Your task to perform on an android device: How much does the new iPad cost? Image 0: 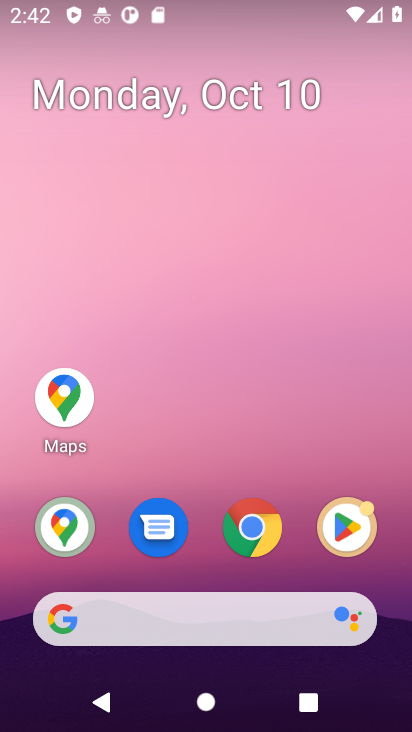
Step 0: click (252, 526)
Your task to perform on an android device: How much does the new iPad cost? Image 1: 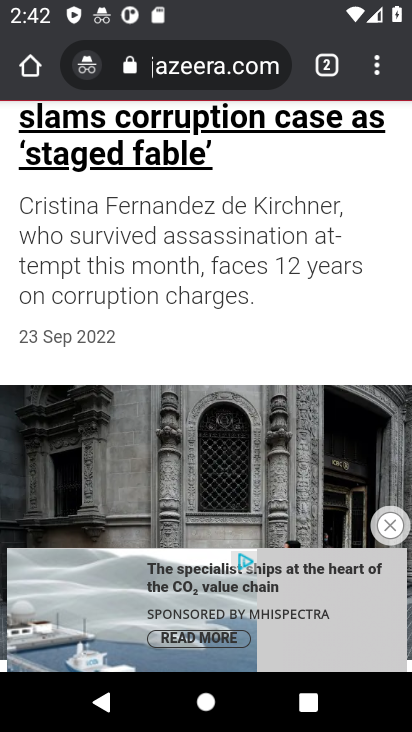
Step 1: click (265, 66)
Your task to perform on an android device: How much does the new iPad cost? Image 2: 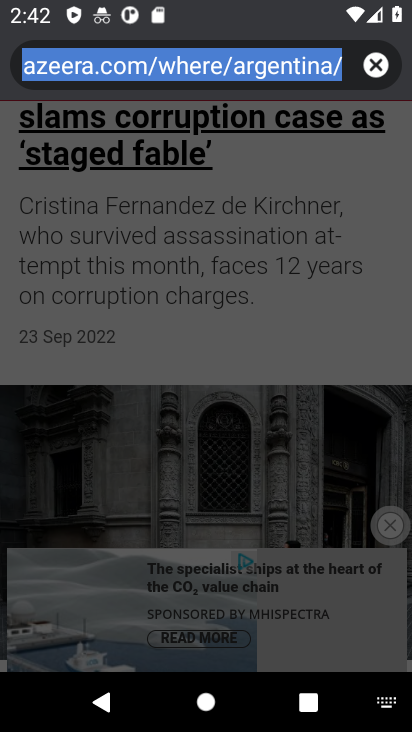
Step 2: click (375, 68)
Your task to perform on an android device: How much does the new iPad cost? Image 3: 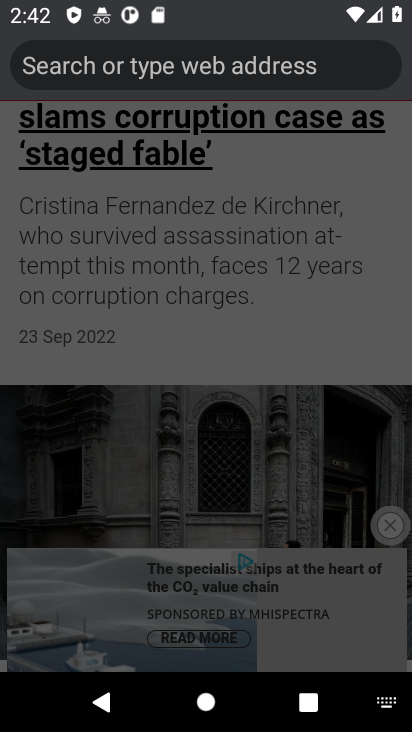
Step 3: click (270, 64)
Your task to perform on an android device: How much does the new iPad cost? Image 4: 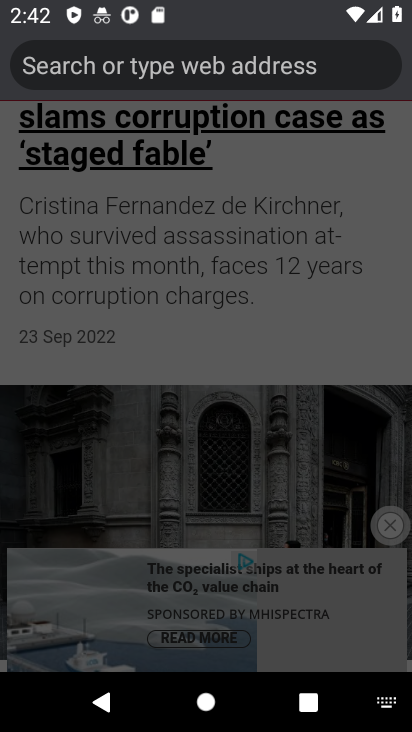
Step 4: type "How much does the new iPad cost"
Your task to perform on an android device: How much does the new iPad cost? Image 5: 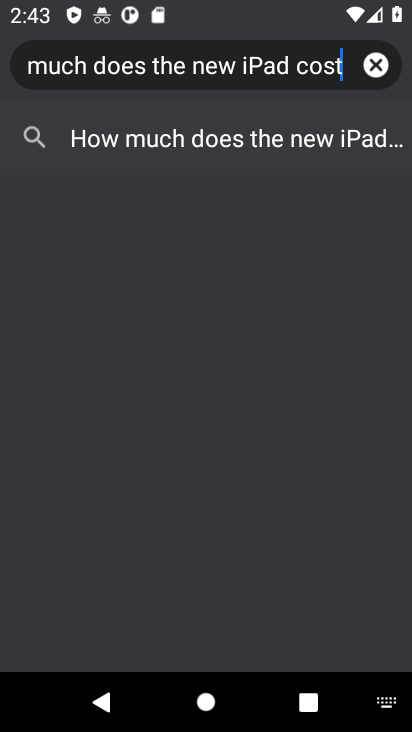
Step 5: click (337, 148)
Your task to perform on an android device: How much does the new iPad cost? Image 6: 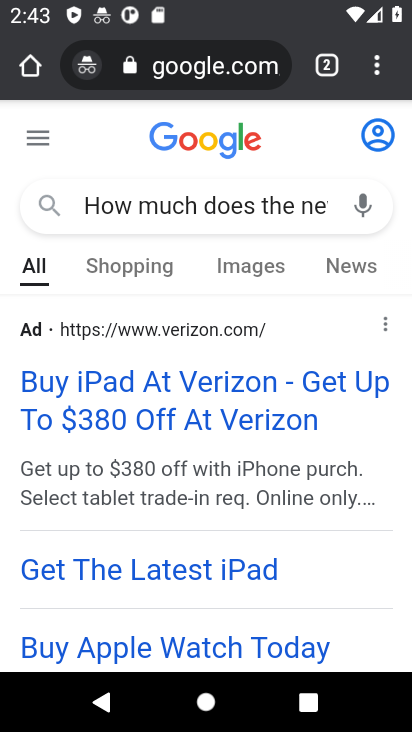
Step 6: task complete